Your task to perform on an android device: Open display settings Image 0: 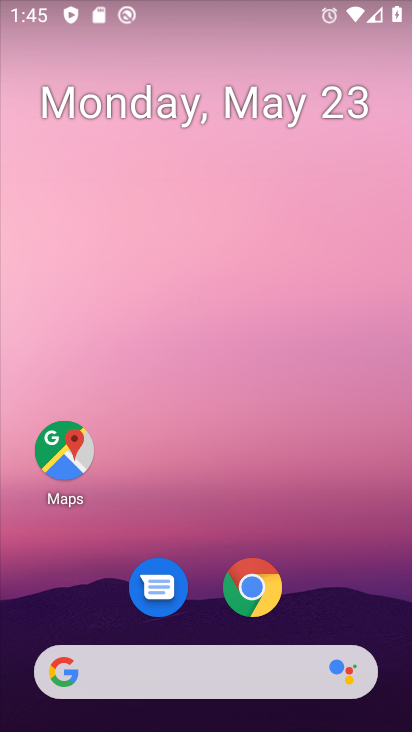
Step 0: drag from (380, 599) to (305, 279)
Your task to perform on an android device: Open display settings Image 1: 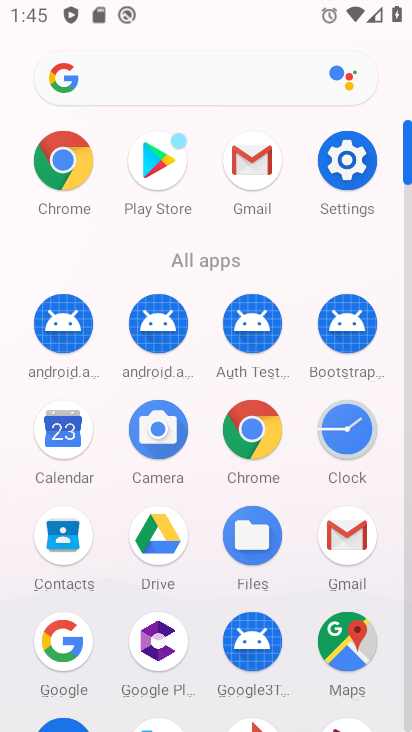
Step 1: click (358, 163)
Your task to perform on an android device: Open display settings Image 2: 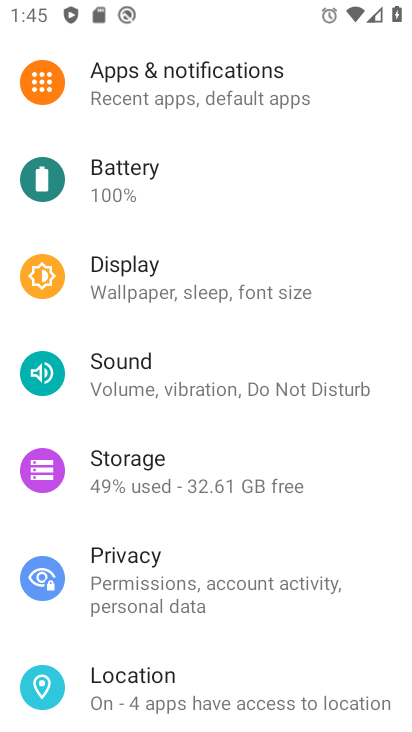
Step 2: click (234, 287)
Your task to perform on an android device: Open display settings Image 3: 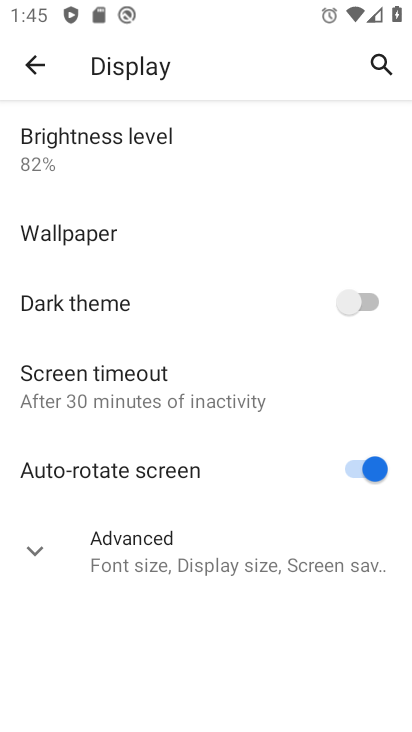
Step 3: task complete